Your task to perform on an android device: check storage Image 0: 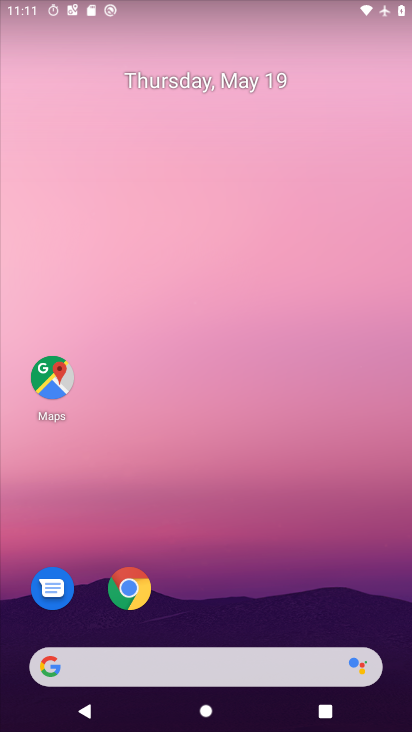
Step 0: press home button
Your task to perform on an android device: check storage Image 1: 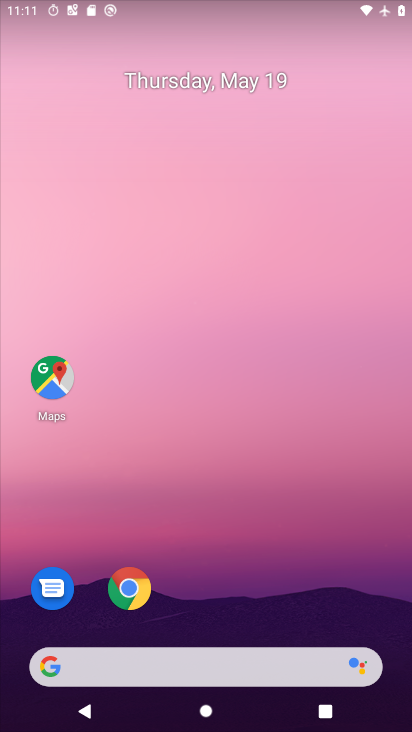
Step 1: drag from (178, 672) to (289, 188)
Your task to perform on an android device: check storage Image 2: 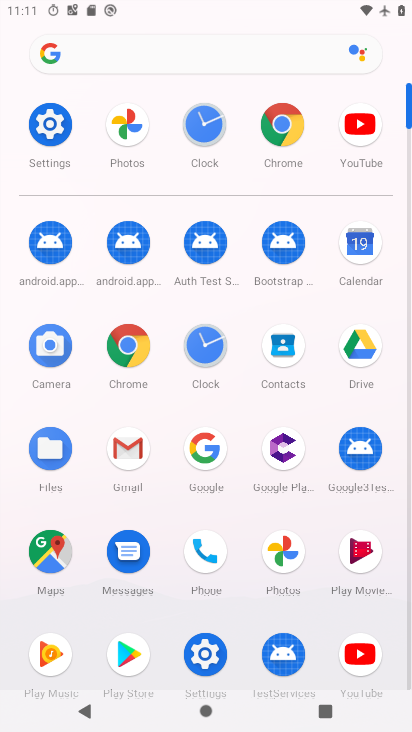
Step 2: click (53, 125)
Your task to perform on an android device: check storage Image 3: 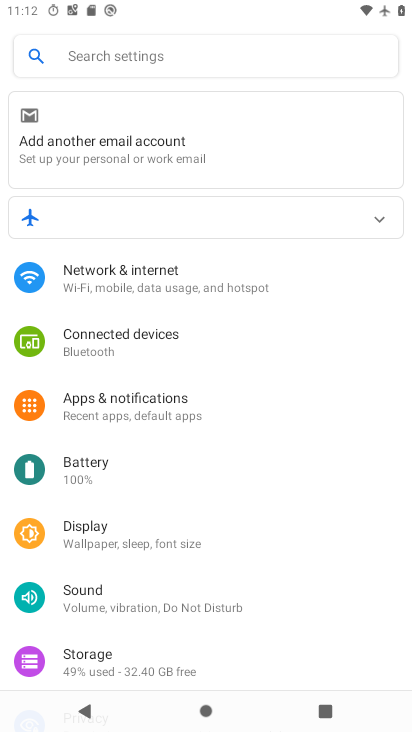
Step 3: click (100, 661)
Your task to perform on an android device: check storage Image 4: 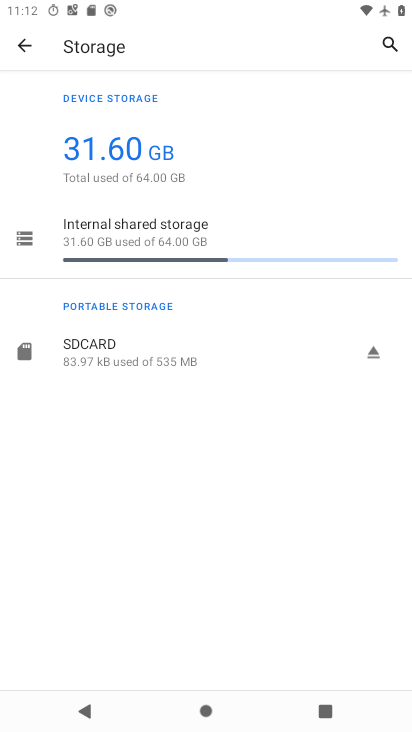
Step 4: task complete